Your task to perform on an android device: Open Yahoo.com Image 0: 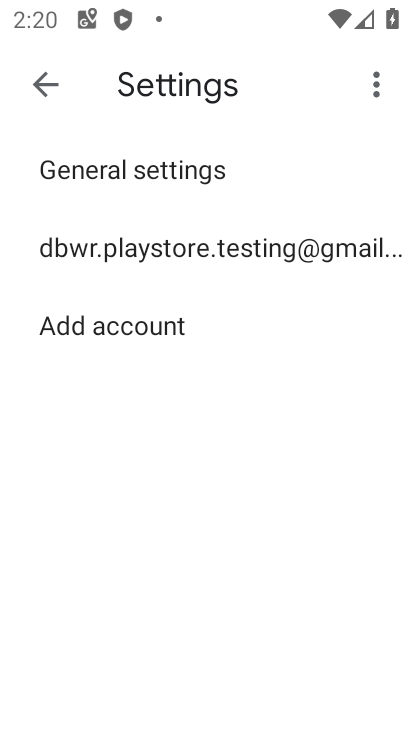
Step 0: press home button
Your task to perform on an android device: Open Yahoo.com Image 1: 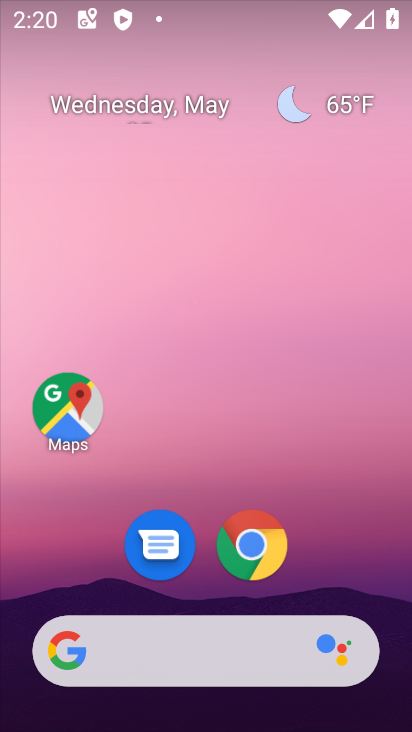
Step 1: click (268, 563)
Your task to perform on an android device: Open Yahoo.com Image 2: 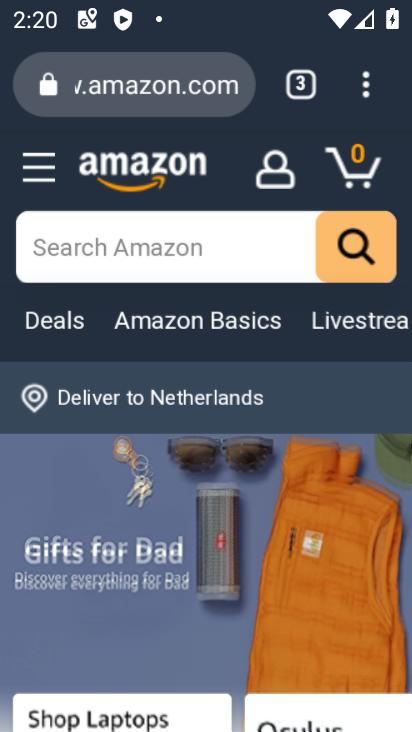
Step 2: click (298, 86)
Your task to perform on an android device: Open Yahoo.com Image 3: 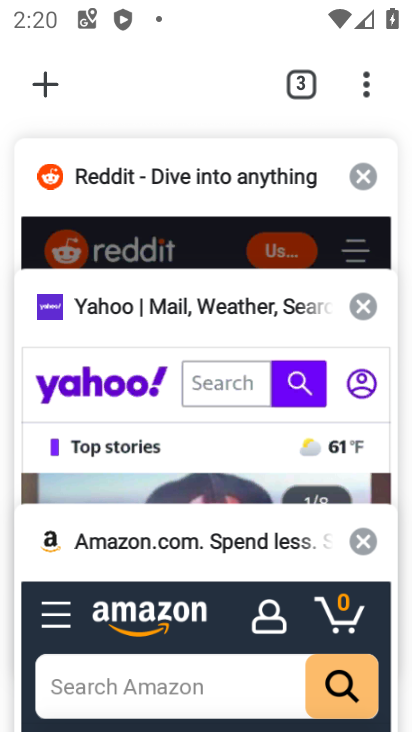
Step 3: click (132, 382)
Your task to perform on an android device: Open Yahoo.com Image 4: 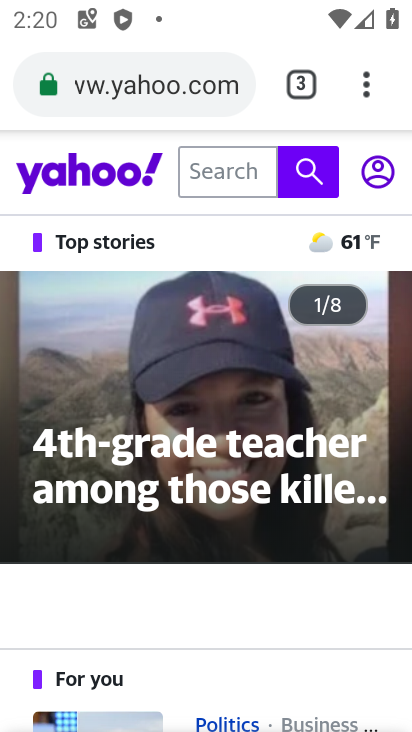
Step 4: task complete